Your task to perform on an android device: open device folders in google photos Image 0: 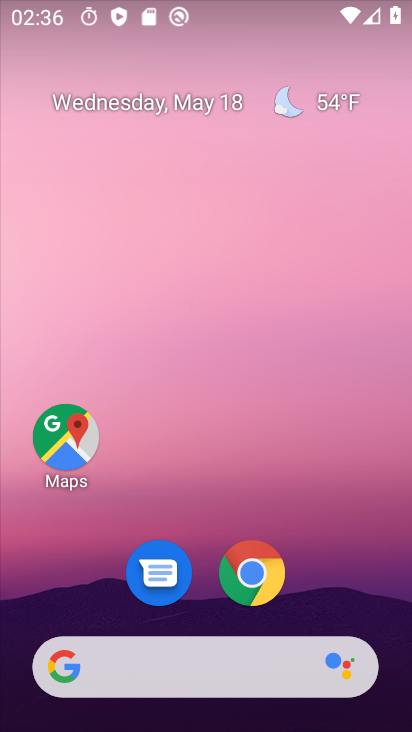
Step 0: drag from (202, 602) to (250, 221)
Your task to perform on an android device: open device folders in google photos Image 1: 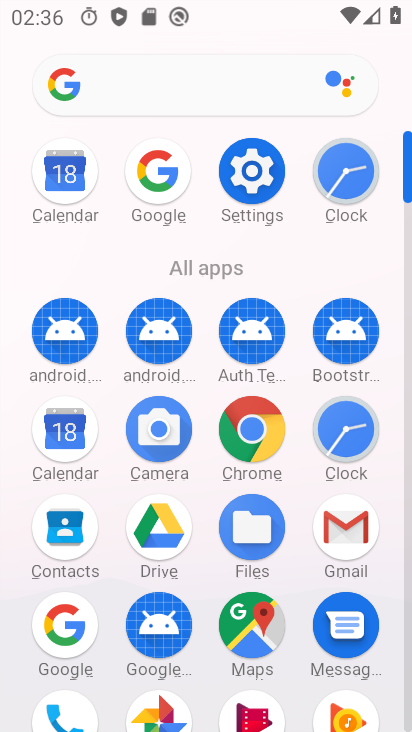
Step 1: drag from (188, 547) to (207, 316)
Your task to perform on an android device: open device folders in google photos Image 2: 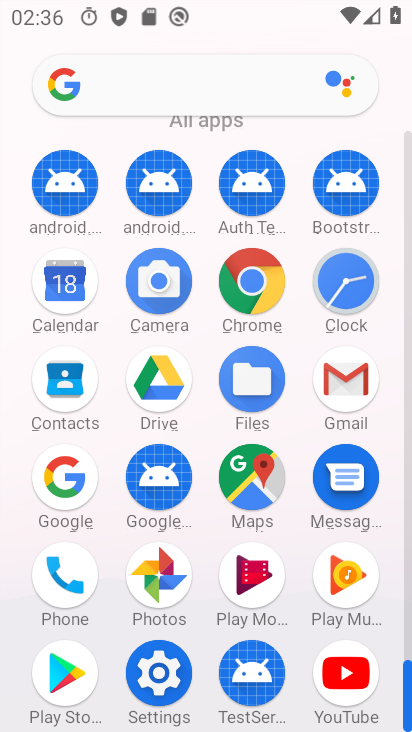
Step 2: click (168, 552)
Your task to perform on an android device: open device folders in google photos Image 3: 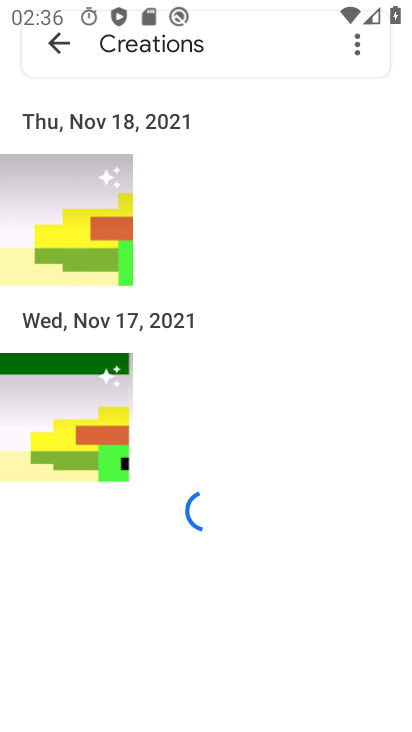
Step 3: click (59, 38)
Your task to perform on an android device: open device folders in google photos Image 4: 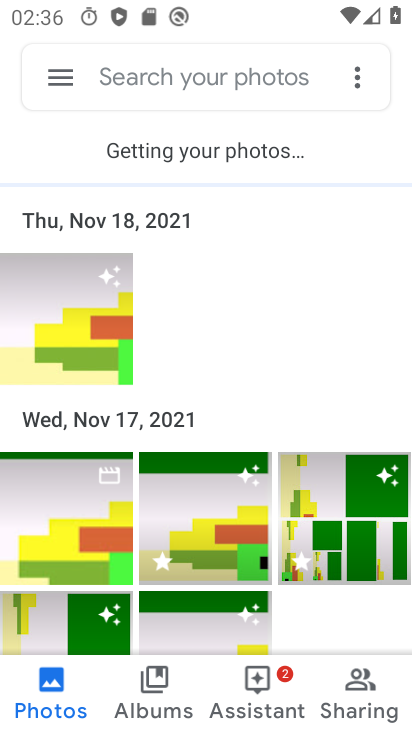
Step 4: click (56, 68)
Your task to perform on an android device: open device folders in google photos Image 5: 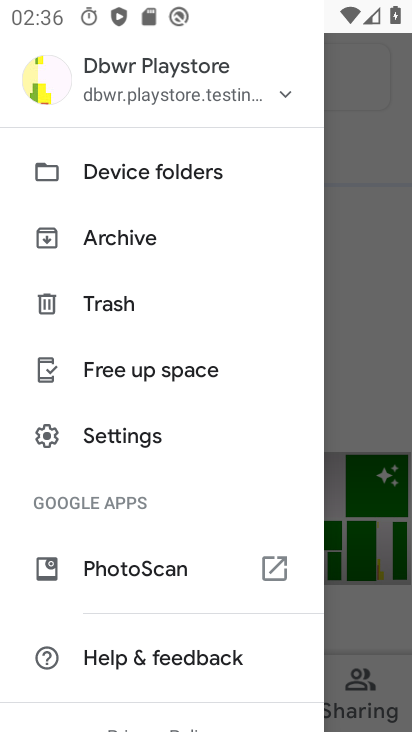
Step 5: click (147, 176)
Your task to perform on an android device: open device folders in google photos Image 6: 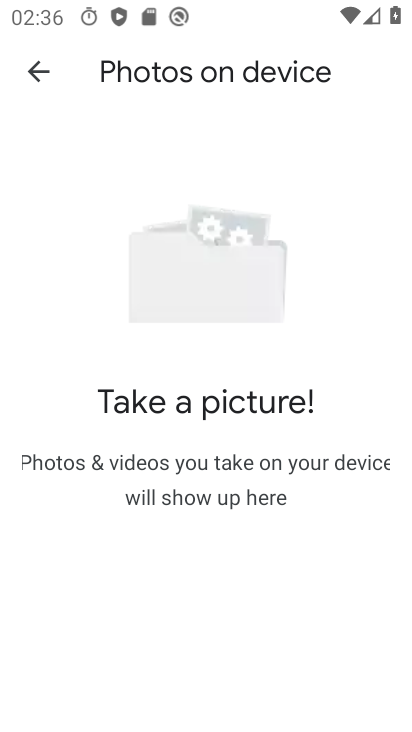
Step 6: task complete